Your task to perform on an android device: set the timer Image 0: 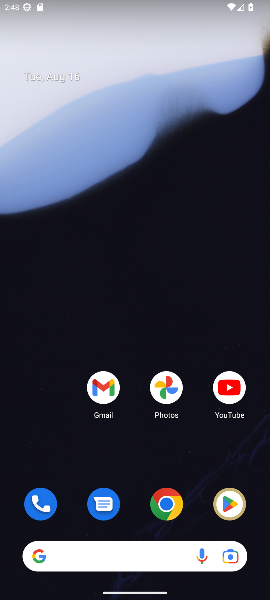
Step 0: drag from (117, 540) to (84, 224)
Your task to perform on an android device: set the timer Image 1: 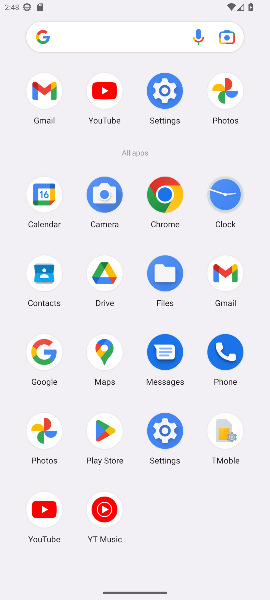
Step 1: click (215, 208)
Your task to perform on an android device: set the timer Image 2: 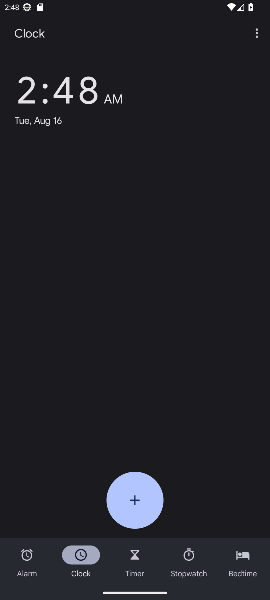
Step 2: click (131, 544)
Your task to perform on an android device: set the timer Image 3: 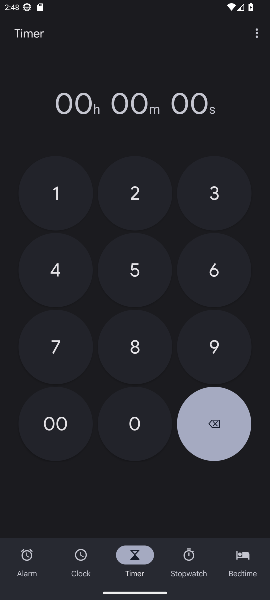
Step 3: click (132, 424)
Your task to perform on an android device: set the timer Image 4: 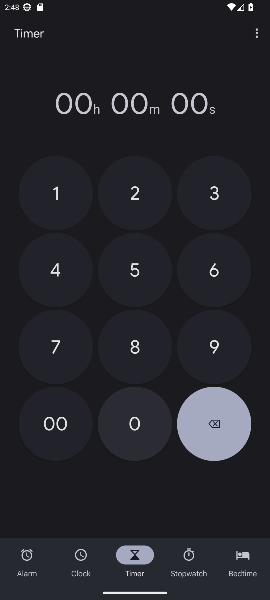
Step 4: click (135, 286)
Your task to perform on an android device: set the timer Image 5: 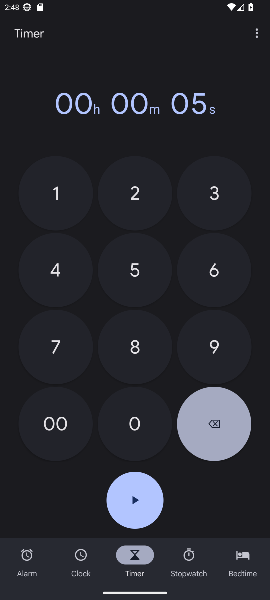
Step 5: click (127, 432)
Your task to perform on an android device: set the timer Image 6: 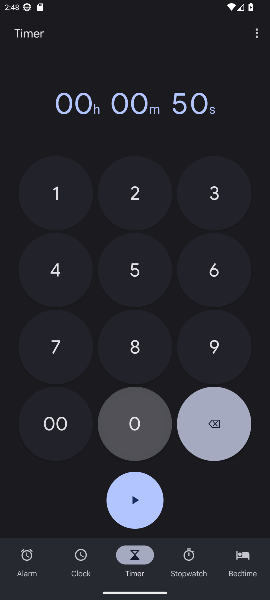
Step 6: click (127, 432)
Your task to perform on an android device: set the timer Image 7: 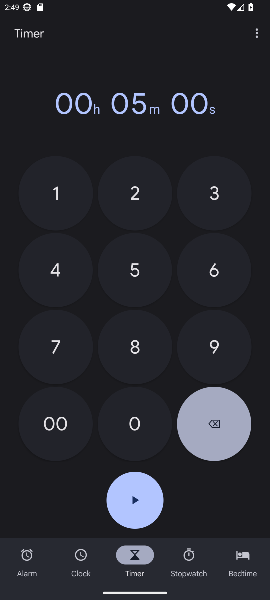
Step 7: click (126, 494)
Your task to perform on an android device: set the timer Image 8: 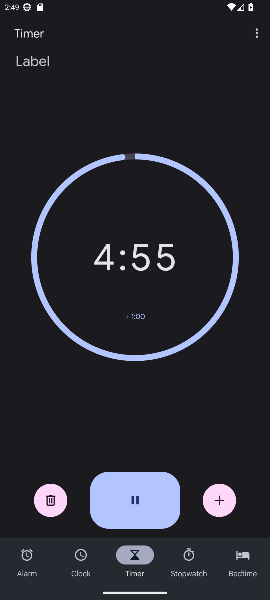
Step 8: task complete